Your task to perform on an android device: turn off airplane mode Image 0: 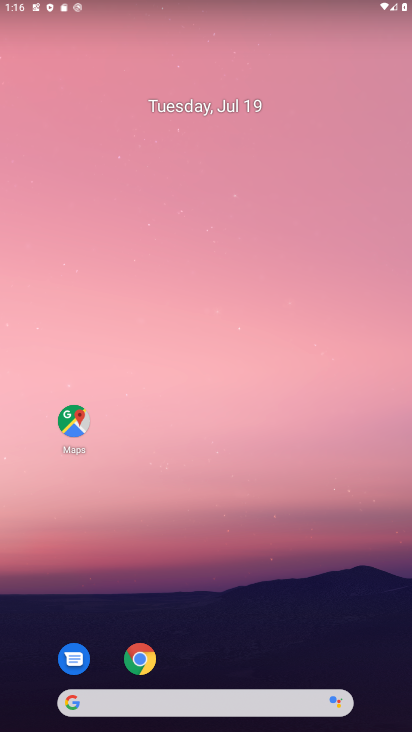
Step 0: press home button
Your task to perform on an android device: turn off airplane mode Image 1: 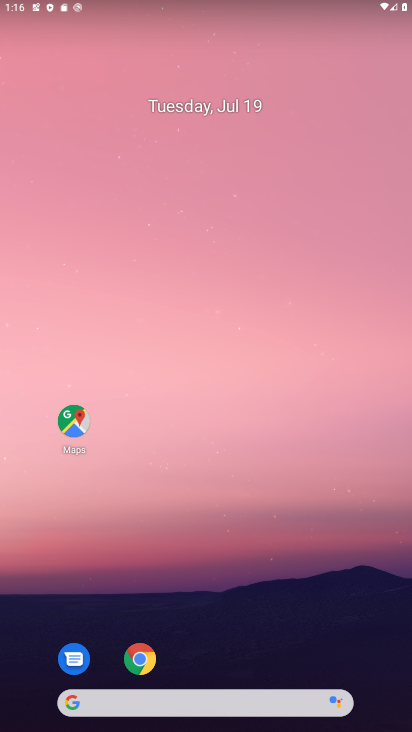
Step 1: task complete